Your task to perform on an android device: allow notifications from all sites in the chrome app Image 0: 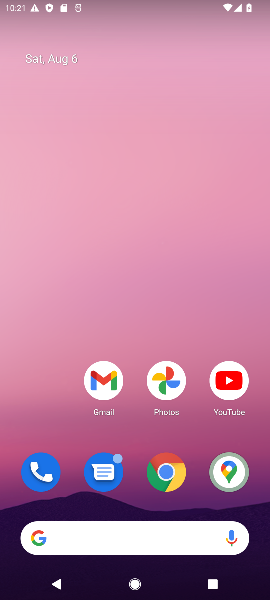
Step 0: drag from (225, 506) to (59, 8)
Your task to perform on an android device: allow notifications from all sites in the chrome app Image 1: 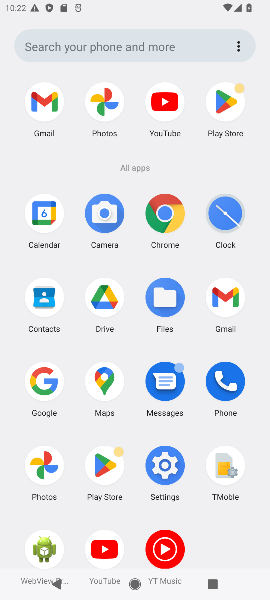
Step 1: click (168, 220)
Your task to perform on an android device: allow notifications from all sites in the chrome app Image 2: 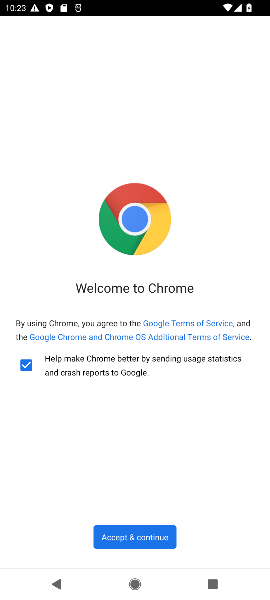
Step 2: click (137, 539)
Your task to perform on an android device: allow notifications from all sites in the chrome app Image 3: 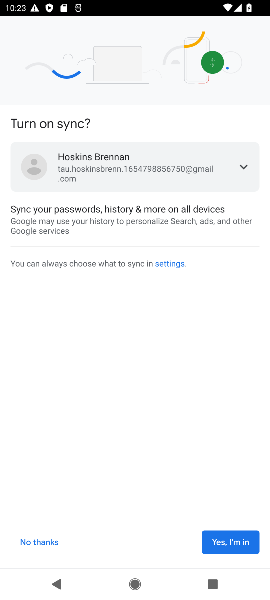
Step 3: click (211, 543)
Your task to perform on an android device: allow notifications from all sites in the chrome app Image 4: 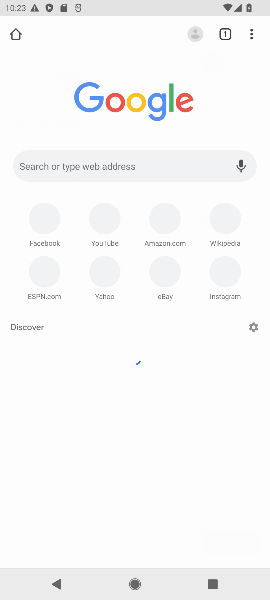
Step 4: click (224, 542)
Your task to perform on an android device: allow notifications from all sites in the chrome app Image 5: 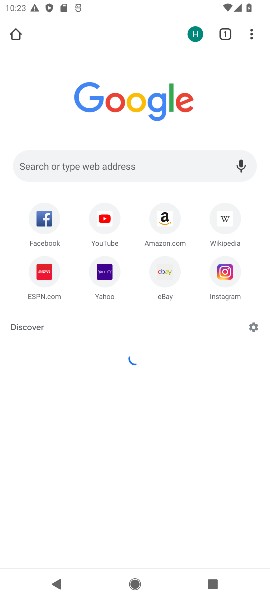
Step 5: click (252, 32)
Your task to perform on an android device: allow notifications from all sites in the chrome app Image 6: 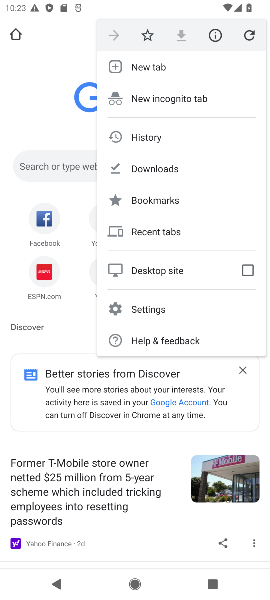
Step 6: click (146, 305)
Your task to perform on an android device: allow notifications from all sites in the chrome app Image 7: 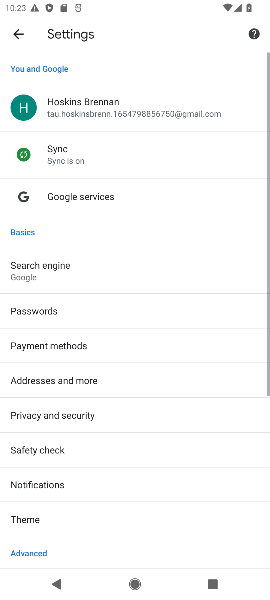
Step 7: drag from (61, 531) to (86, 390)
Your task to perform on an android device: allow notifications from all sites in the chrome app Image 8: 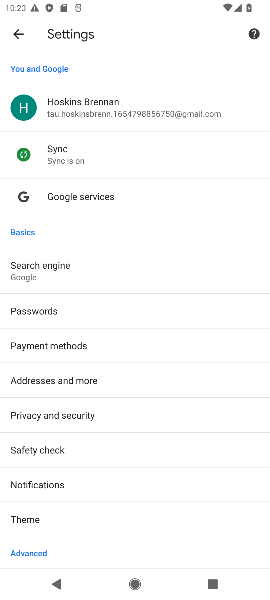
Step 8: click (42, 478)
Your task to perform on an android device: allow notifications from all sites in the chrome app Image 9: 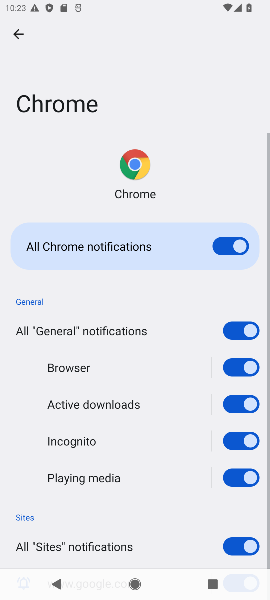
Step 9: task complete